Your task to perform on an android device: Go to settings Image 0: 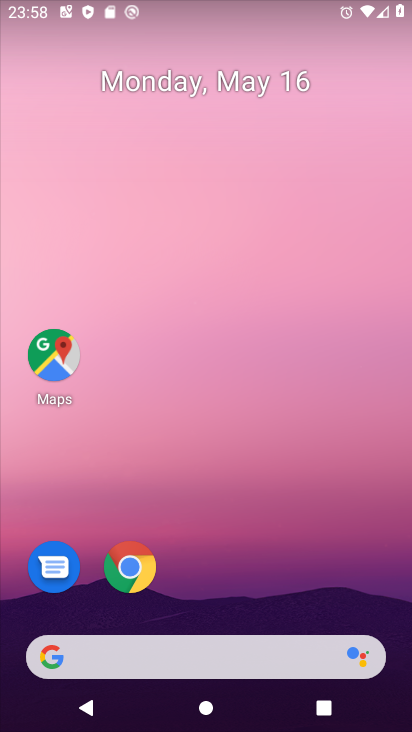
Step 0: drag from (215, 545) to (173, 141)
Your task to perform on an android device: Go to settings Image 1: 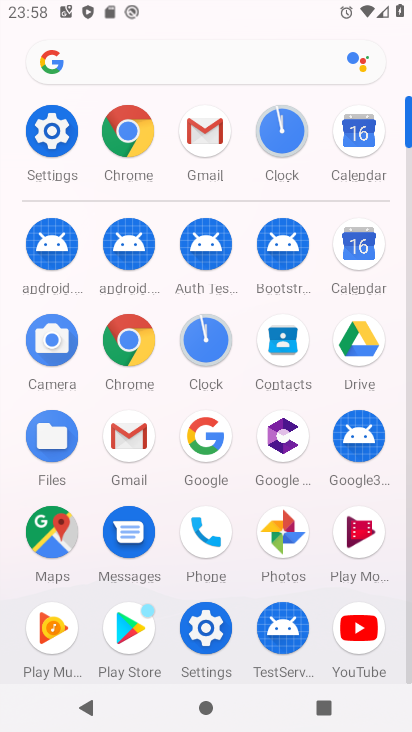
Step 1: click (50, 128)
Your task to perform on an android device: Go to settings Image 2: 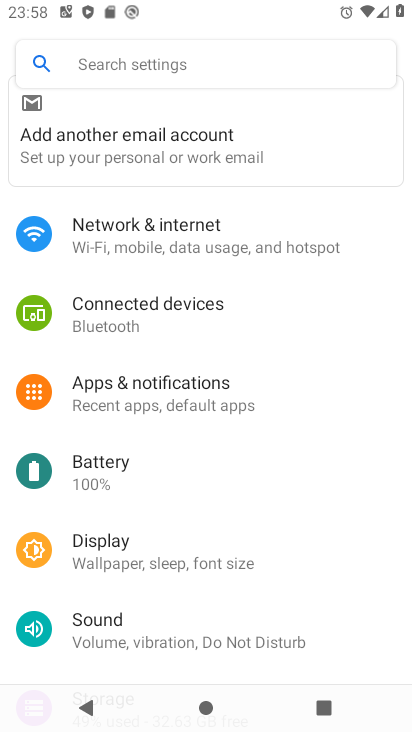
Step 2: task complete